Your task to perform on an android device: Go to Maps Image 0: 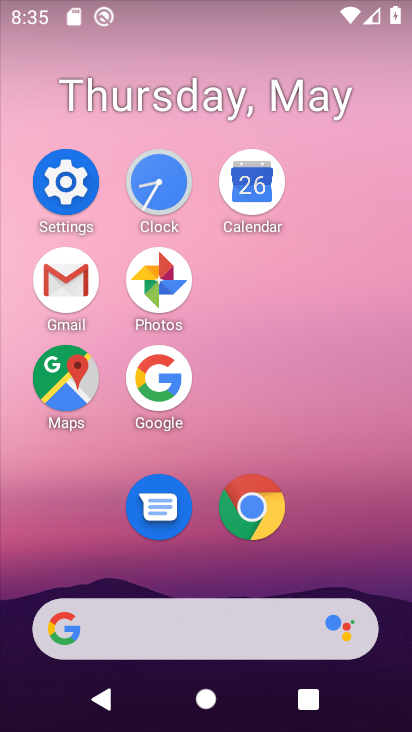
Step 0: click (63, 403)
Your task to perform on an android device: Go to Maps Image 1: 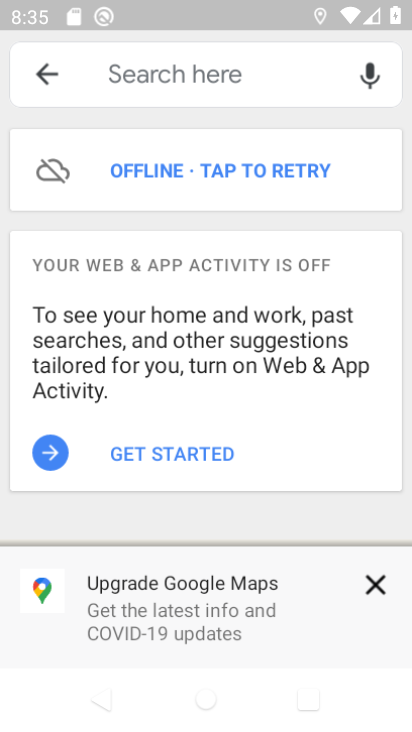
Step 1: task complete